Your task to perform on an android device: Show me the alarms in the clock app Image 0: 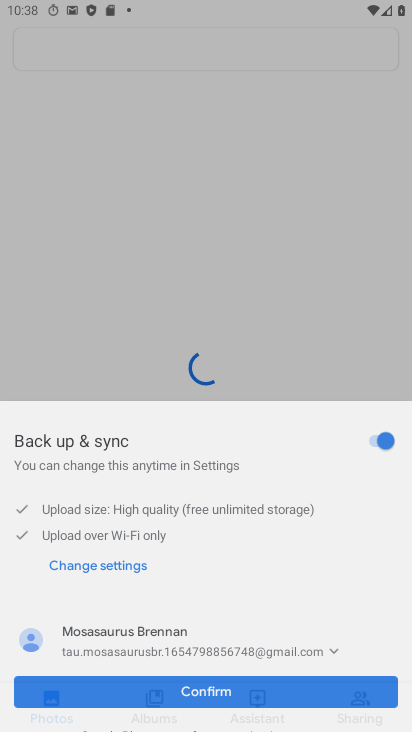
Step 0: press home button
Your task to perform on an android device: Show me the alarms in the clock app Image 1: 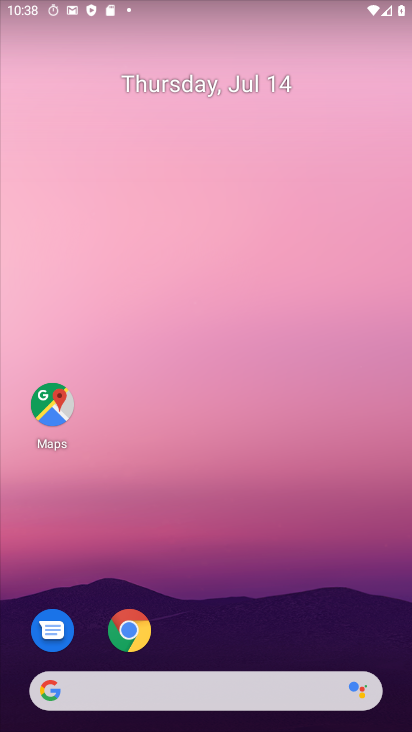
Step 1: drag from (291, 578) to (283, 54)
Your task to perform on an android device: Show me the alarms in the clock app Image 2: 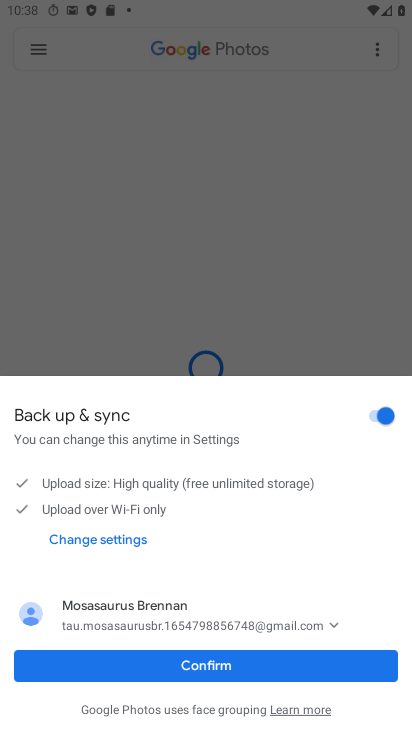
Step 2: press home button
Your task to perform on an android device: Show me the alarms in the clock app Image 3: 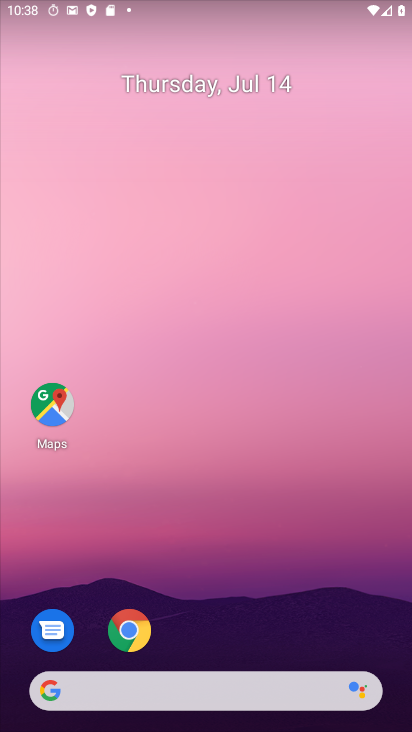
Step 3: drag from (245, 603) to (230, 107)
Your task to perform on an android device: Show me the alarms in the clock app Image 4: 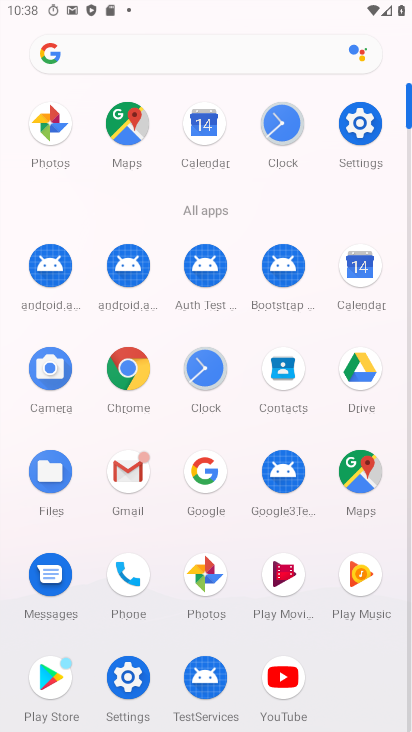
Step 4: click (280, 122)
Your task to perform on an android device: Show me the alarms in the clock app Image 5: 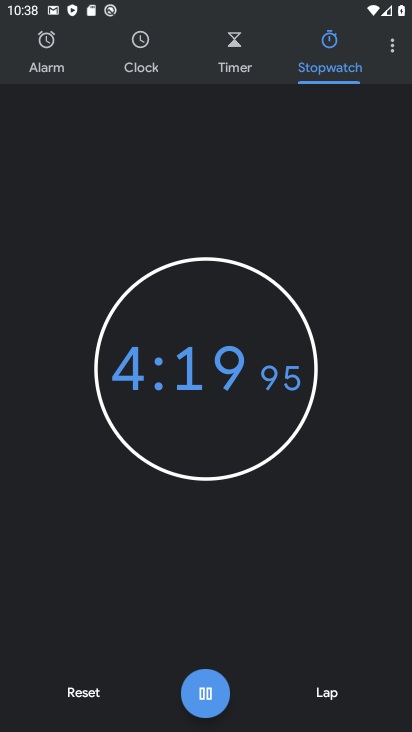
Step 5: click (60, 60)
Your task to perform on an android device: Show me the alarms in the clock app Image 6: 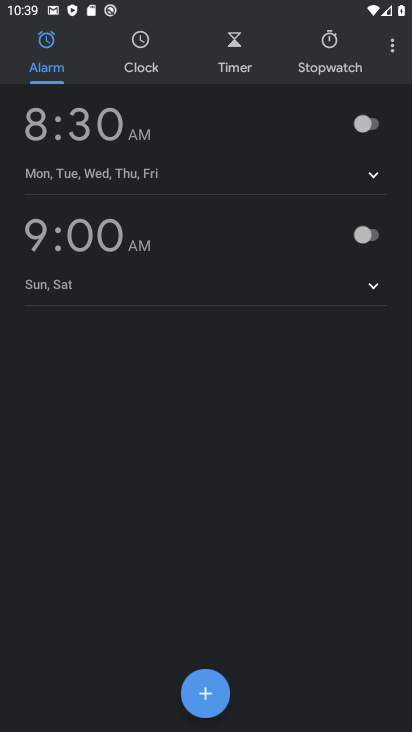
Step 6: task complete